Your task to perform on an android device: Show me popular games on the Play Store Image 0: 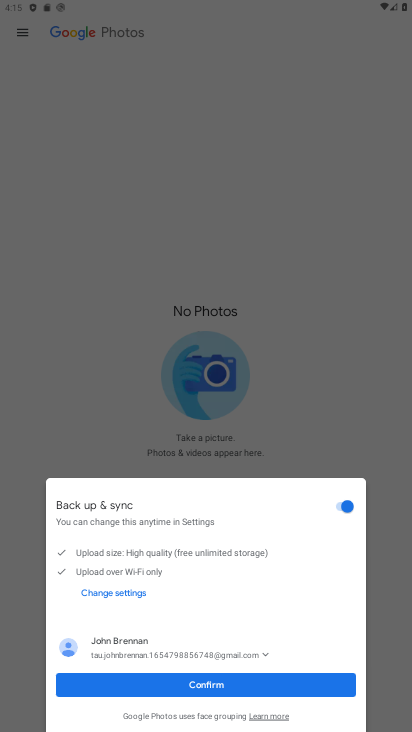
Step 0: press home button
Your task to perform on an android device: Show me popular games on the Play Store Image 1: 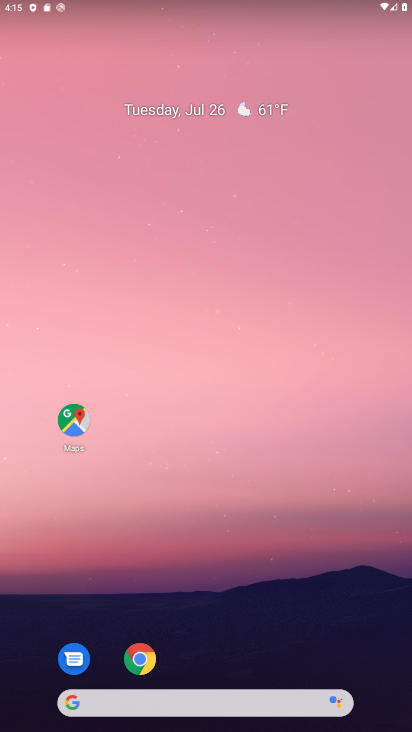
Step 1: drag from (237, 565) to (273, 245)
Your task to perform on an android device: Show me popular games on the Play Store Image 2: 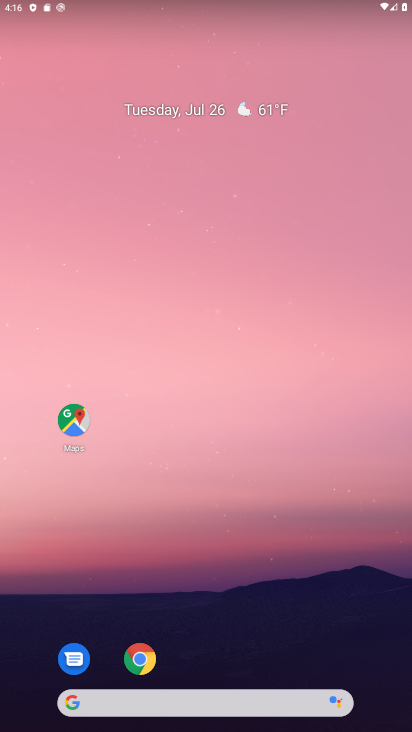
Step 2: drag from (261, 601) to (267, 4)
Your task to perform on an android device: Show me popular games on the Play Store Image 3: 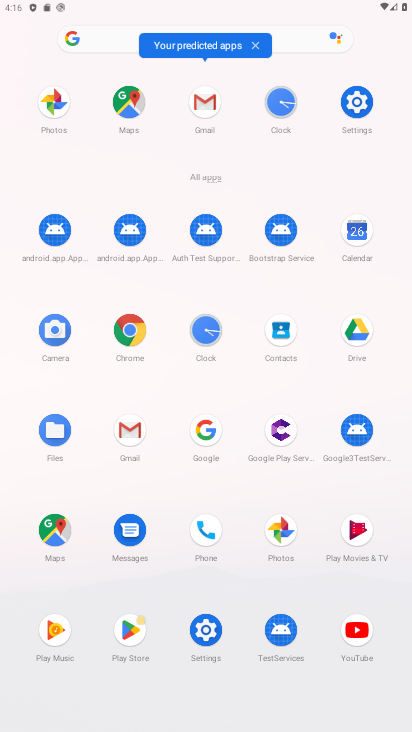
Step 3: click (124, 617)
Your task to perform on an android device: Show me popular games on the Play Store Image 4: 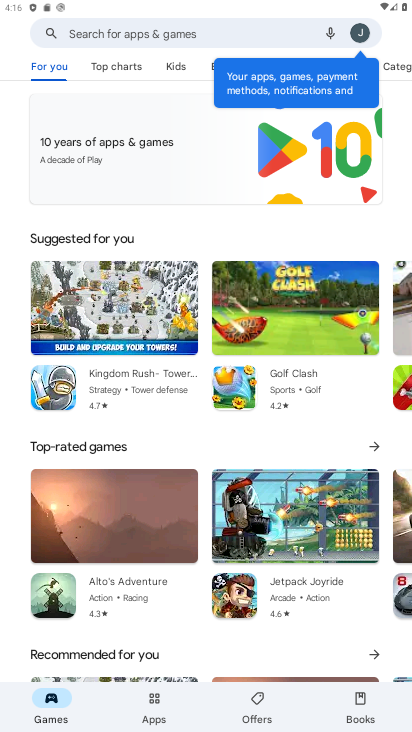
Step 4: task complete